Your task to perform on an android device: read, delete, or share a saved page in the chrome app Image 0: 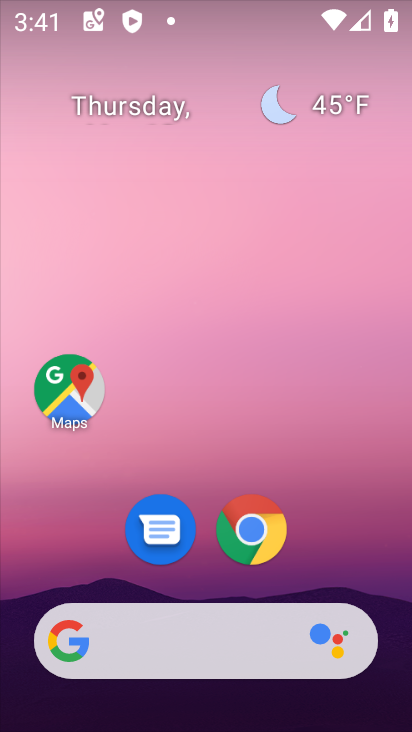
Step 0: drag from (360, 516) to (308, 26)
Your task to perform on an android device: read, delete, or share a saved page in the chrome app Image 1: 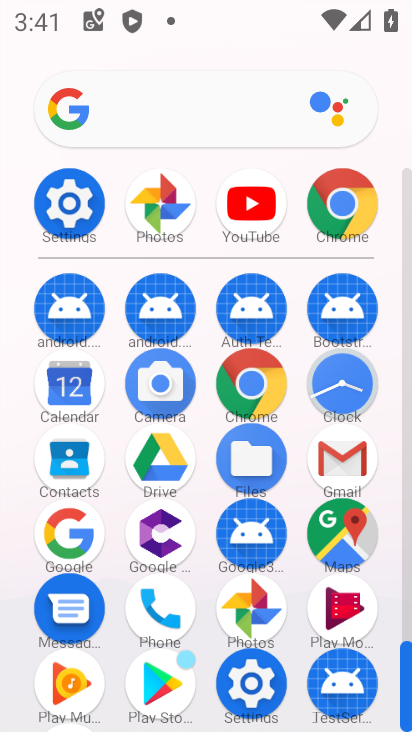
Step 1: click (341, 201)
Your task to perform on an android device: read, delete, or share a saved page in the chrome app Image 2: 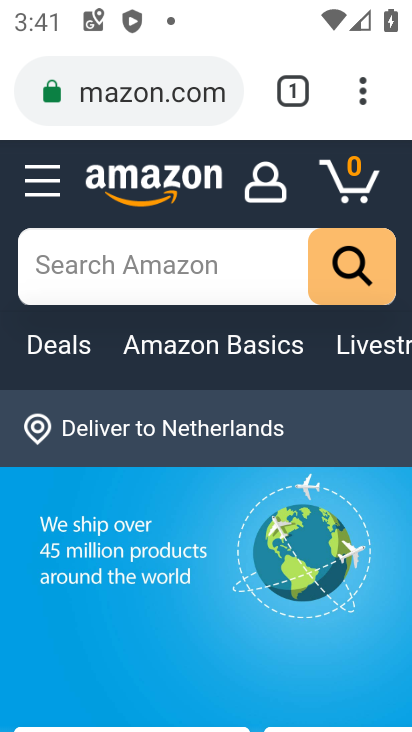
Step 2: task complete